Your task to perform on an android device: change text size in settings app Image 0: 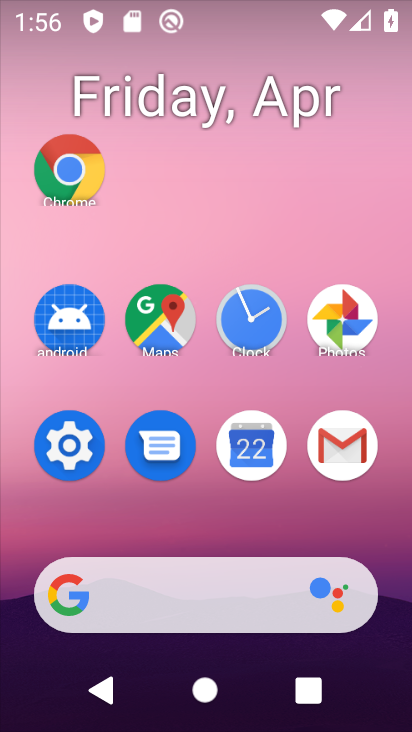
Step 0: click (72, 440)
Your task to perform on an android device: change text size in settings app Image 1: 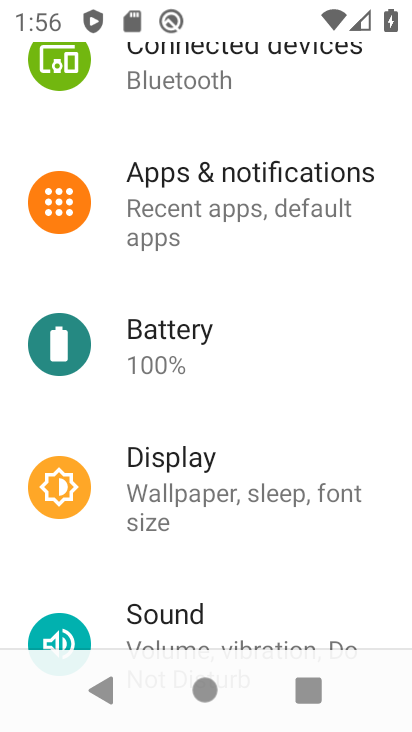
Step 1: click (153, 464)
Your task to perform on an android device: change text size in settings app Image 2: 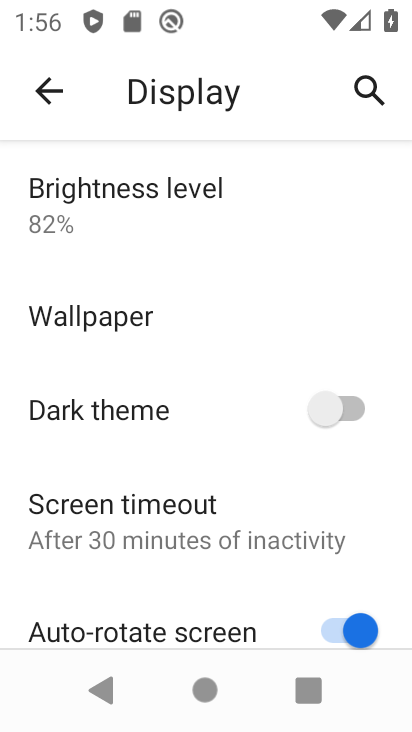
Step 2: drag from (153, 476) to (142, 202)
Your task to perform on an android device: change text size in settings app Image 3: 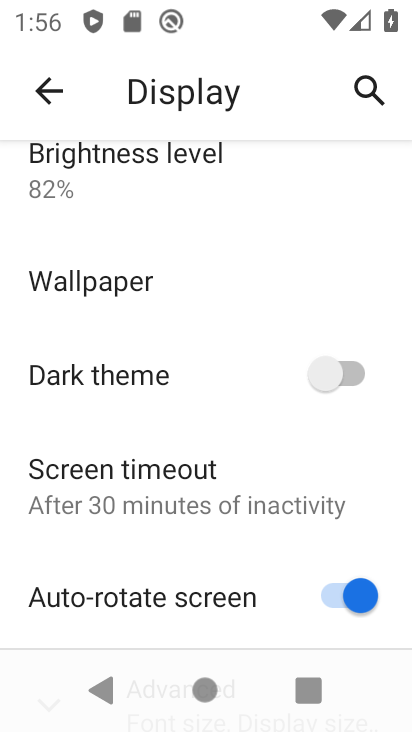
Step 3: drag from (154, 458) to (195, 211)
Your task to perform on an android device: change text size in settings app Image 4: 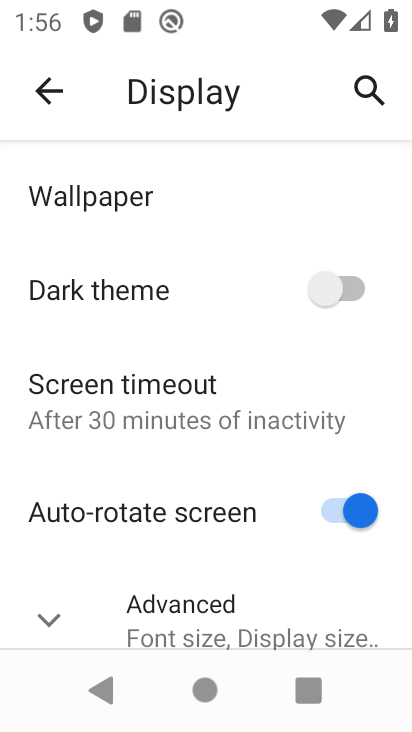
Step 4: drag from (204, 544) to (188, 278)
Your task to perform on an android device: change text size in settings app Image 5: 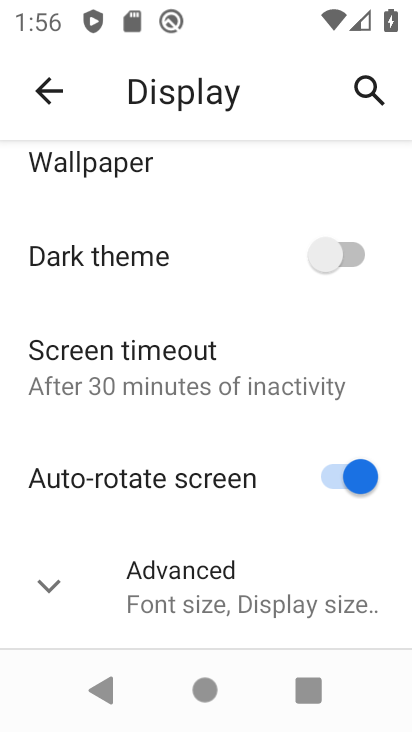
Step 5: click (66, 582)
Your task to perform on an android device: change text size in settings app Image 6: 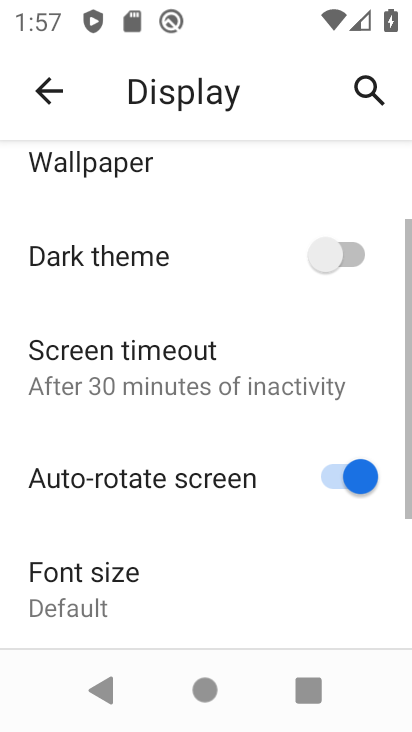
Step 6: click (88, 584)
Your task to perform on an android device: change text size in settings app Image 7: 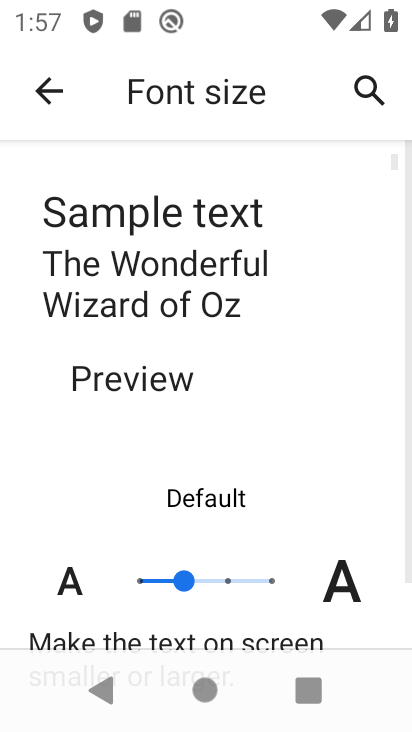
Step 7: click (227, 582)
Your task to perform on an android device: change text size in settings app Image 8: 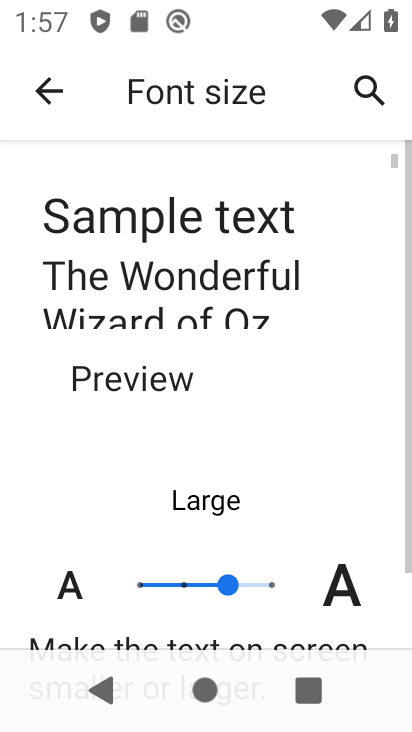
Step 8: task complete